Your task to perform on an android device: check out phone information Image 0: 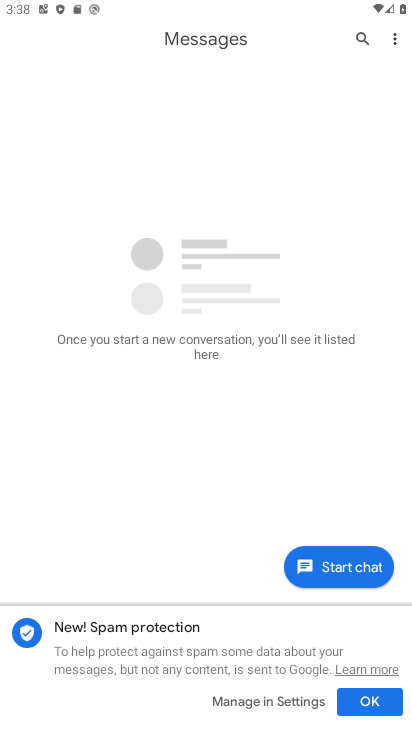
Step 0: drag from (379, 653) to (403, 608)
Your task to perform on an android device: check out phone information Image 1: 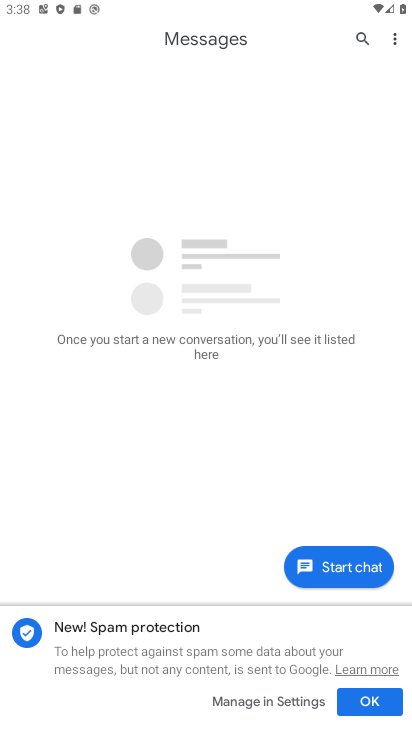
Step 1: press home button
Your task to perform on an android device: check out phone information Image 2: 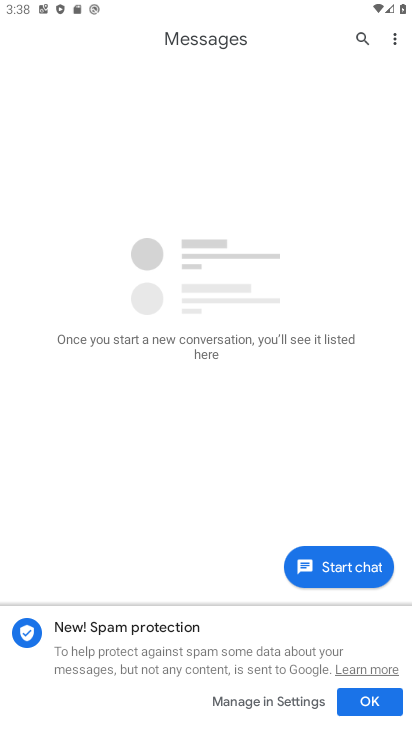
Step 2: click (403, 608)
Your task to perform on an android device: check out phone information Image 3: 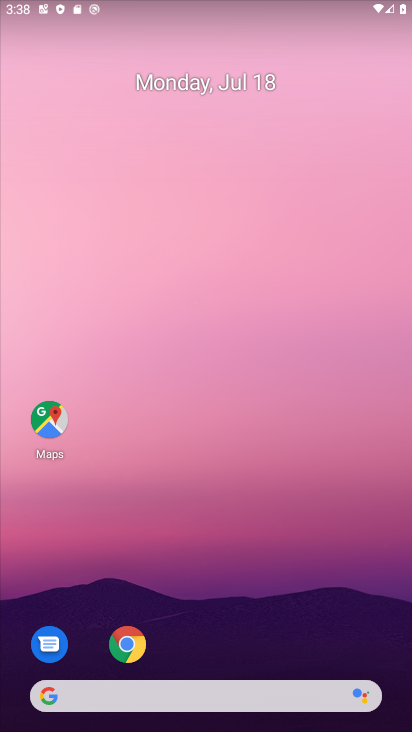
Step 3: drag from (372, 646) to (306, 134)
Your task to perform on an android device: check out phone information Image 4: 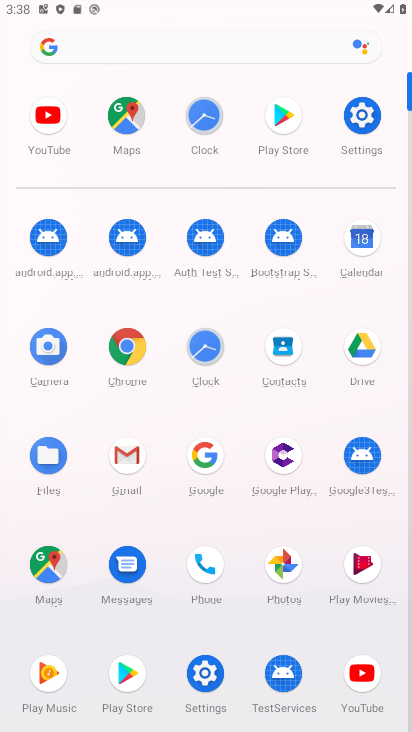
Step 4: click (206, 672)
Your task to perform on an android device: check out phone information Image 5: 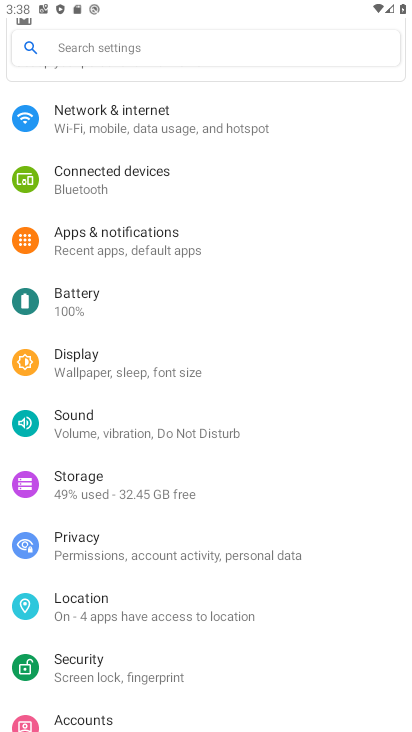
Step 5: drag from (290, 653) to (311, 219)
Your task to perform on an android device: check out phone information Image 6: 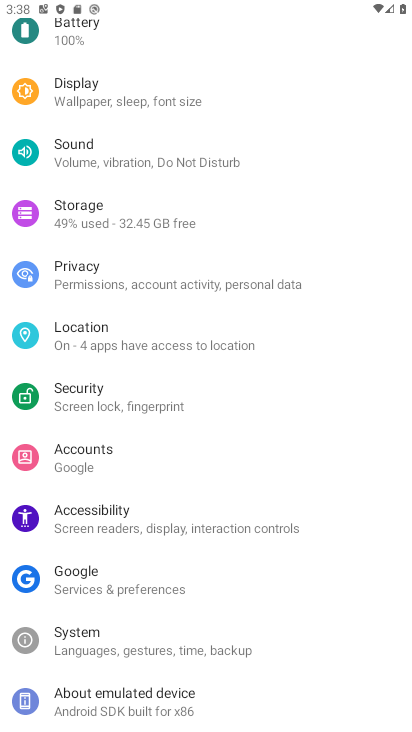
Step 6: click (76, 697)
Your task to perform on an android device: check out phone information Image 7: 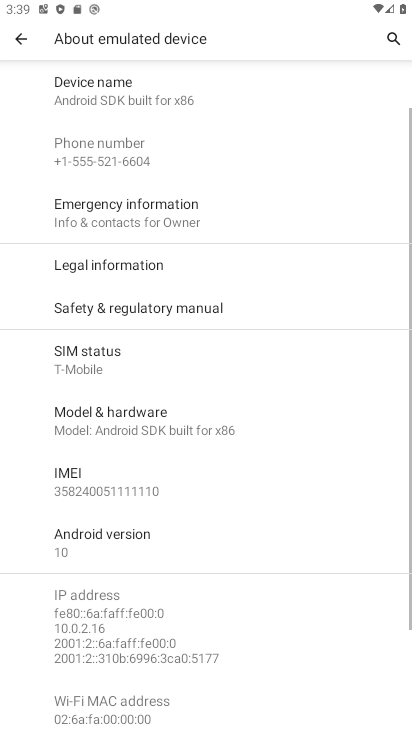
Step 7: task complete